Your task to perform on an android device: Open Google Maps Image 0: 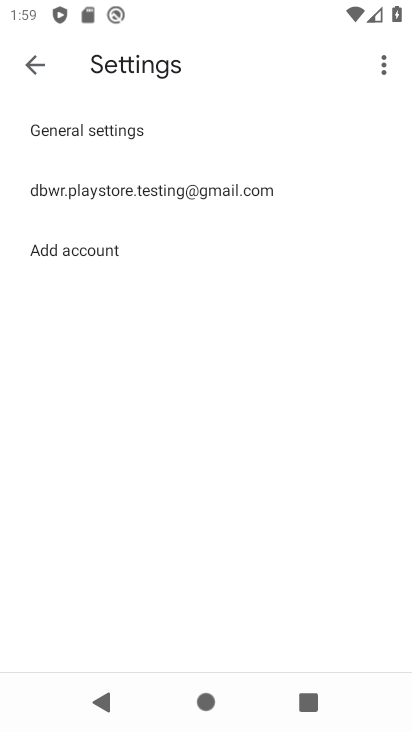
Step 0: drag from (181, 598) to (330, 203)
Your task to perform on an android device: Open Google Maps Image 1: 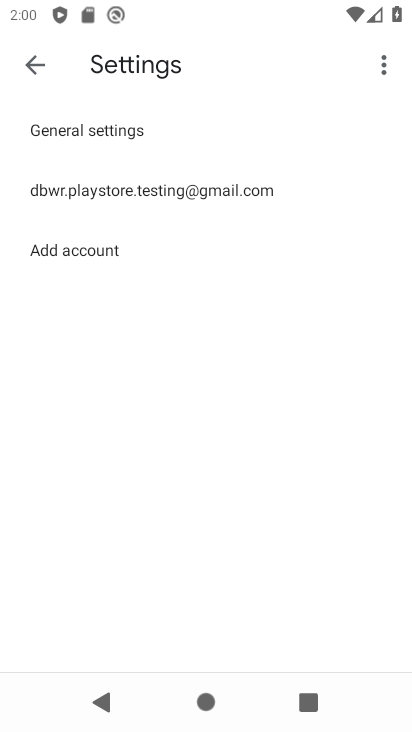
Step 1: drag from (220, 505) to (276, 38)
Your task to perform on an android device: Open Google Maps Image 2: 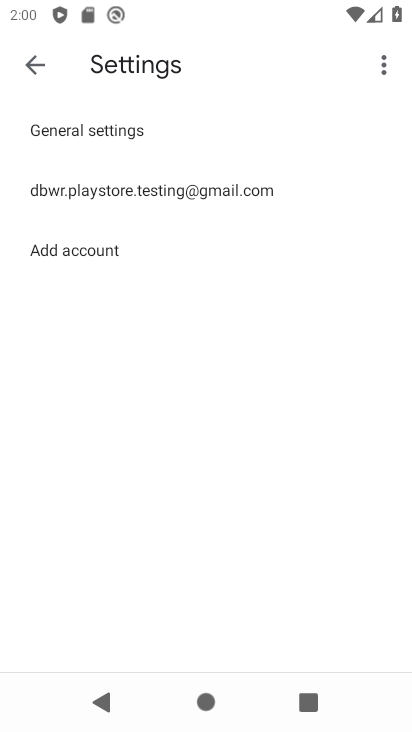
Step 2: press home button
Your task to perform on an android device: Open Google Maps Image 3: 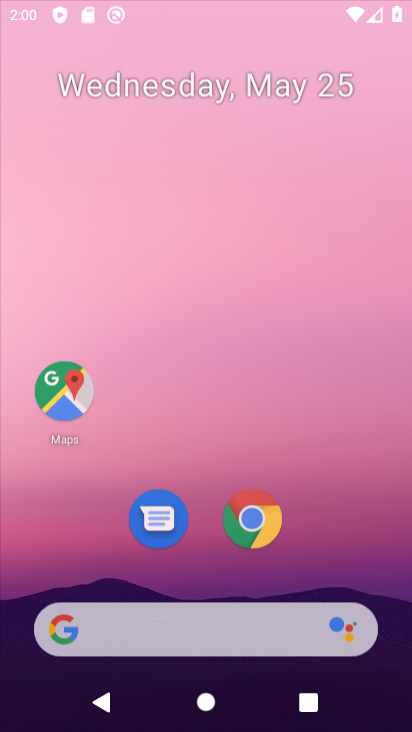
Step 3: drag from (164, 614) to (283, 85)
Your task to perform on an android device: Open Google Maps Image 4: 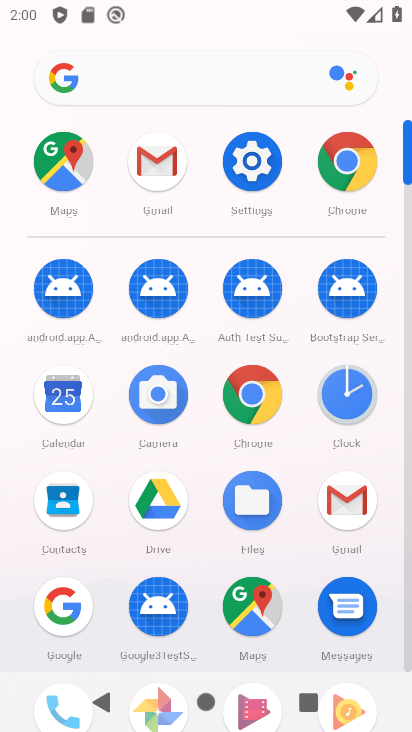
Step 4: click (246, 611)
Your task to perform on an android device: Open Google Maps Image 5: 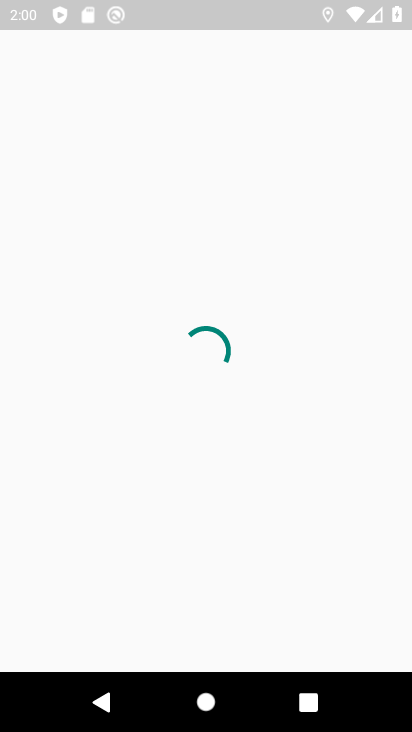
Step 5: task complete